Your task to perform on an android device: turn on bluetooth scan Image 0: 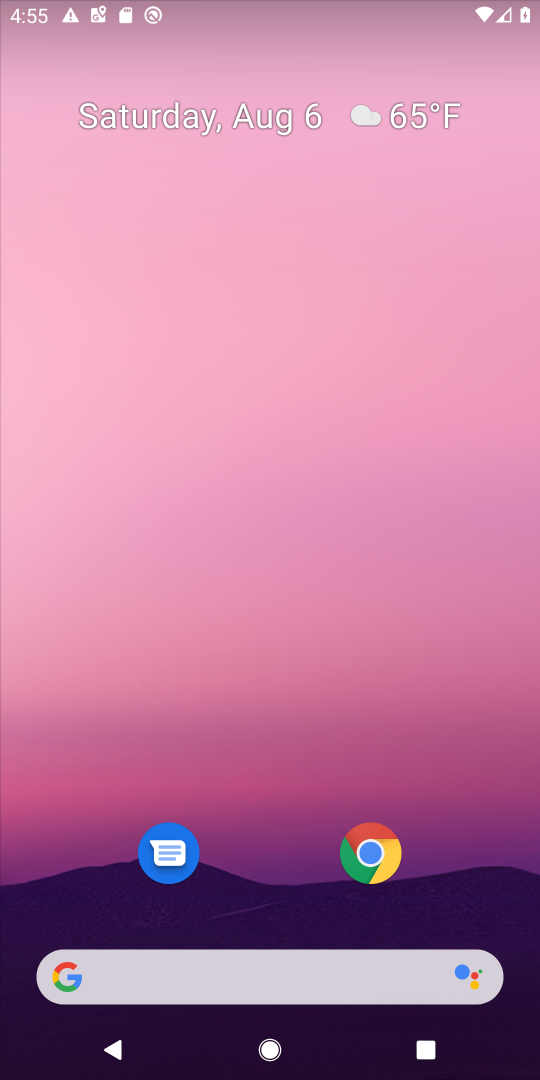
Step 0: press back button
Your task to perform on an android device: turn on bluetooth scan Image 1: 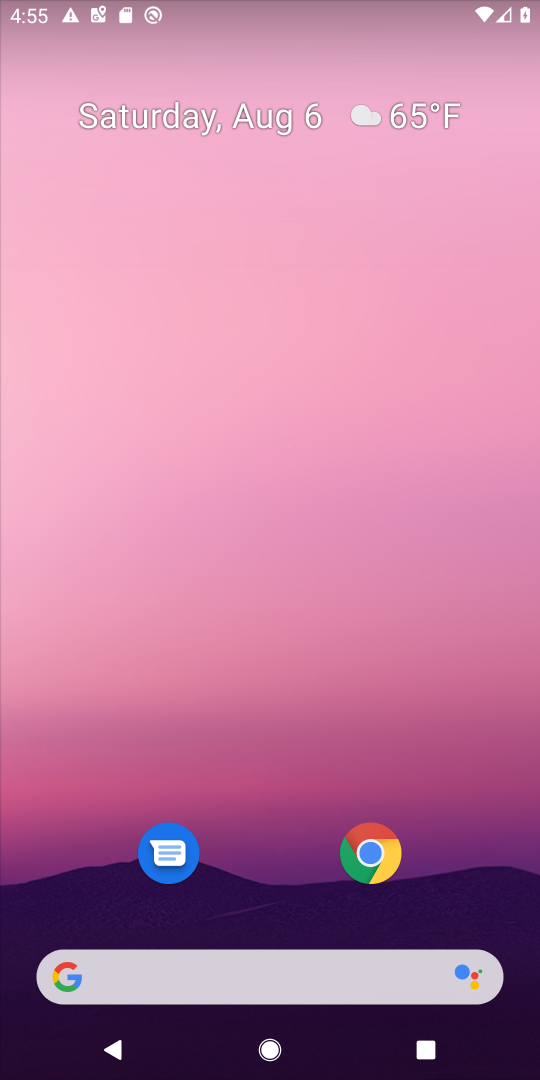
Step 1: drag from (415, 199) to (424, 112)
Your task to perform on an android device: turn on bluetooth scan Image 2: 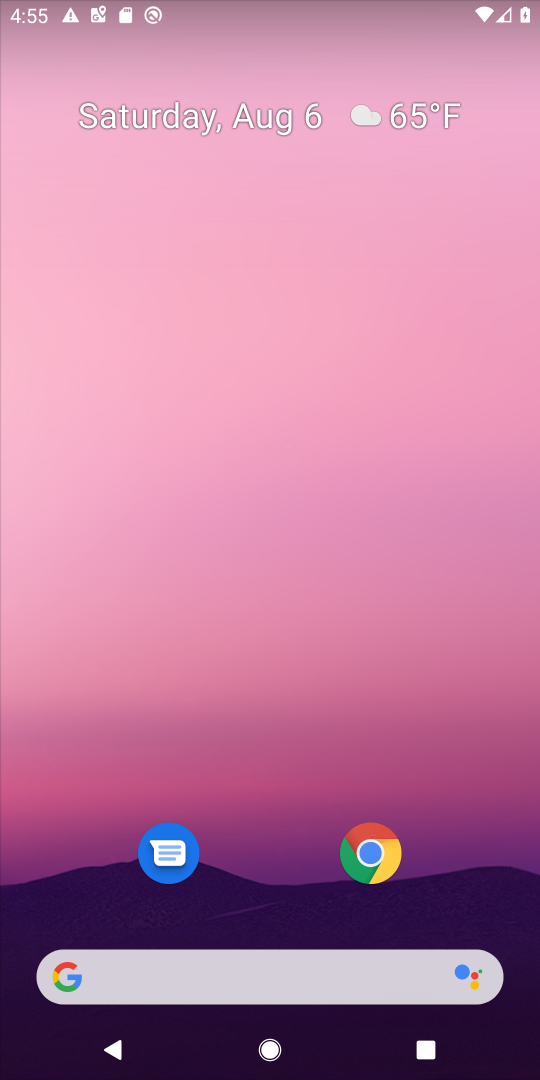
Step 2: drag from (231, 884) to (341, 46)
Your task to perform on an android device: turn on bluetooth scan Image 3: 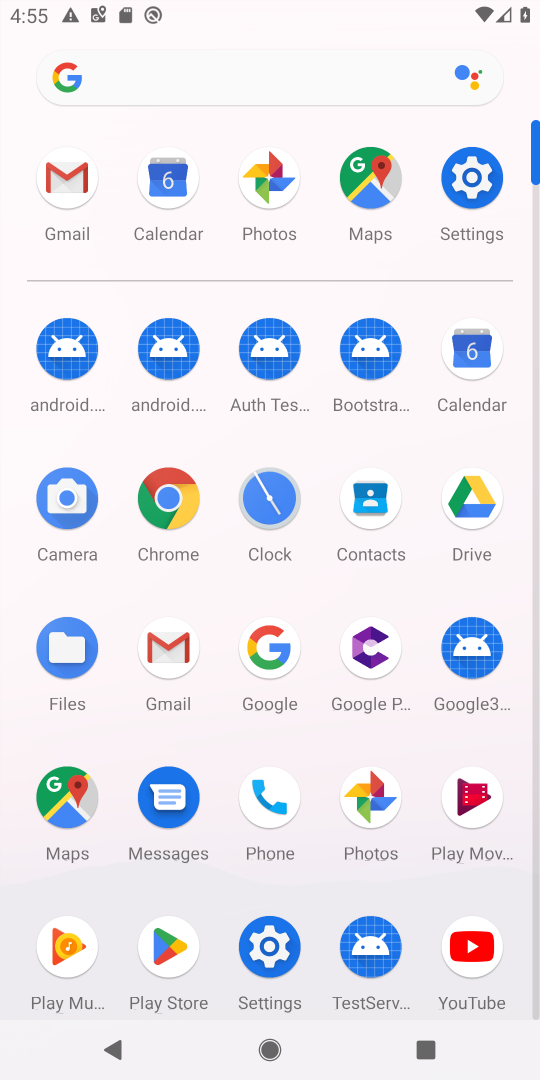
Step 3: click (476, 172)
Your task to perform on an android device: turn on bluetooth scan Image 4: 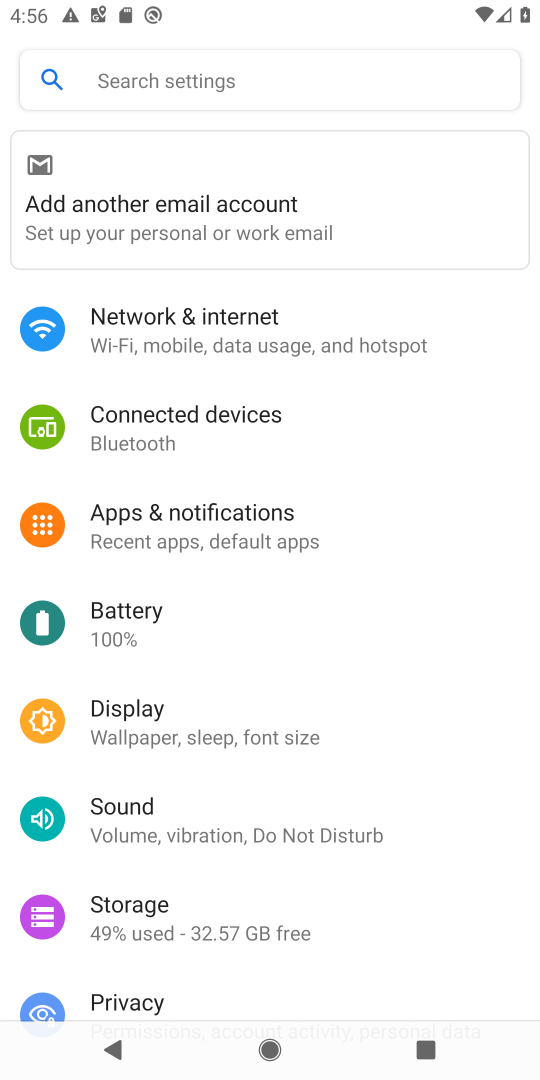
Step 4: click (125, 430)
Your task to perform on an android device: turn on bluetooth scan Image 5: 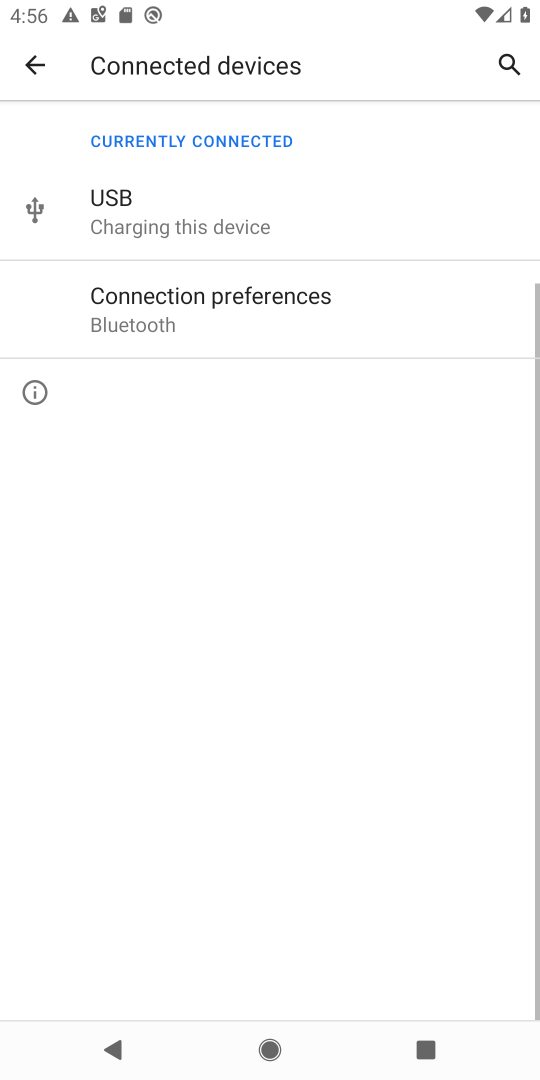
Step 5: click (173, 296)
Your task to perform on an android device: turn on bluetooth scan Image 6: 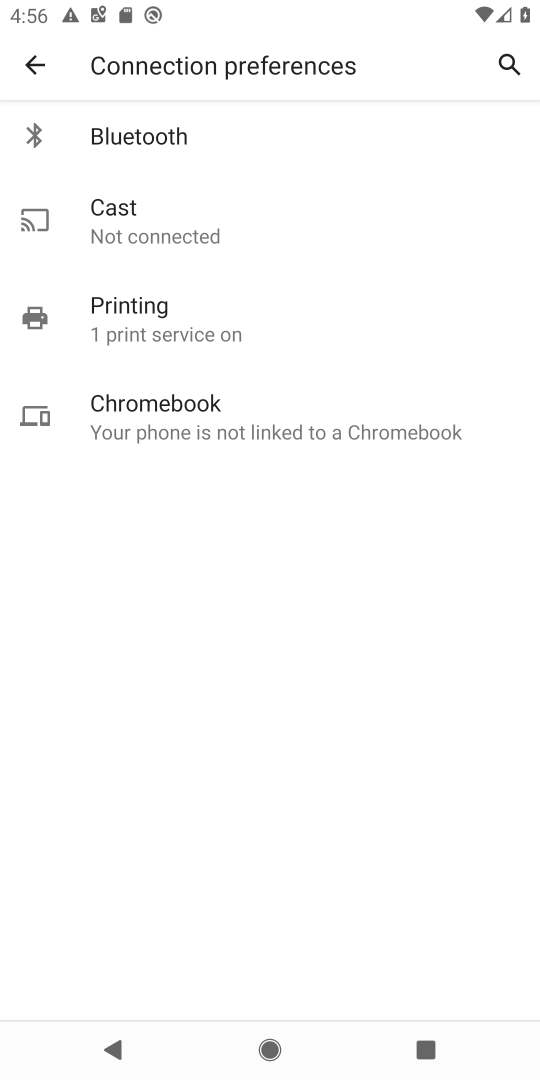
Step 6: click (191, 130)
Your task to perform on an android device: turn on bluetooth scan Image 7: 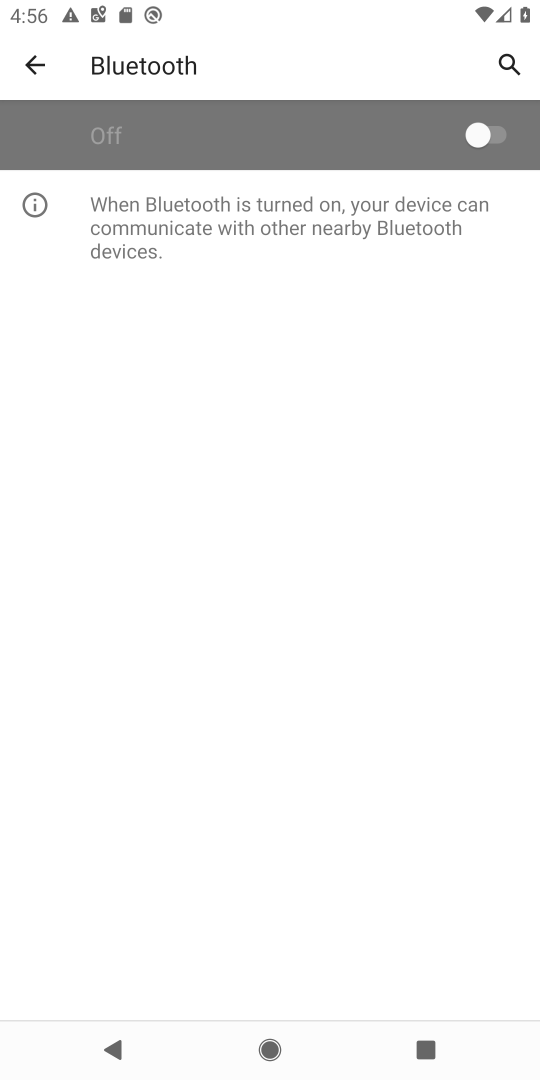
Step 7: click (480, 137)
Your task to perform on an android device: turn on bluetooth scan Image 8: 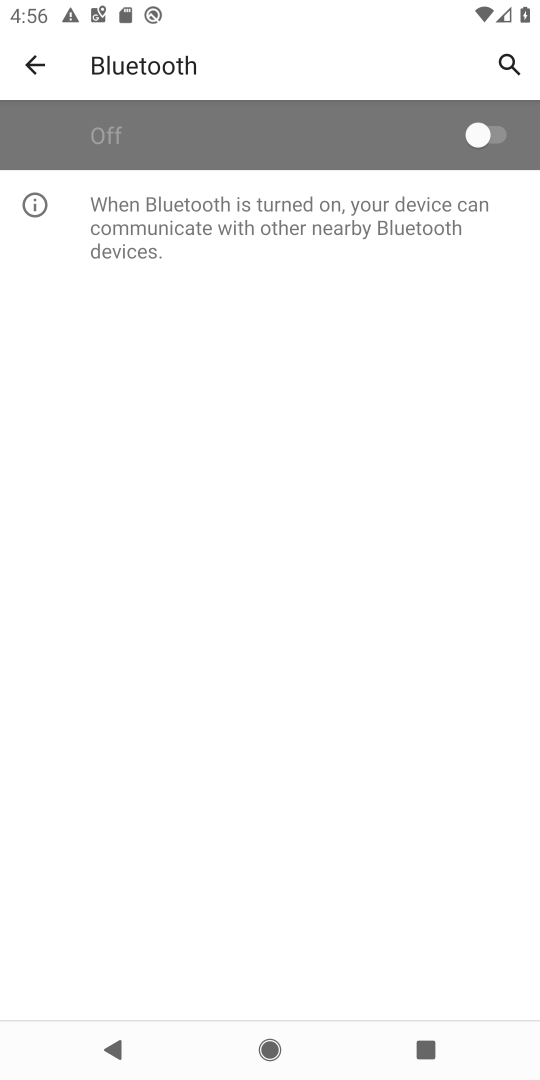
Step 8: task complete